Your task to perform on an android device: change notification settings in the gmail app Image 0: 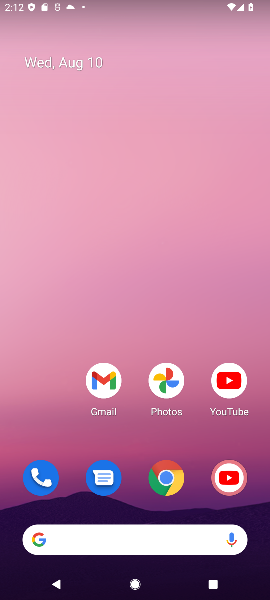
Step 0: click (99, 390)
Your task to perform on an android device: change notification settings in the gmail app Image 1: 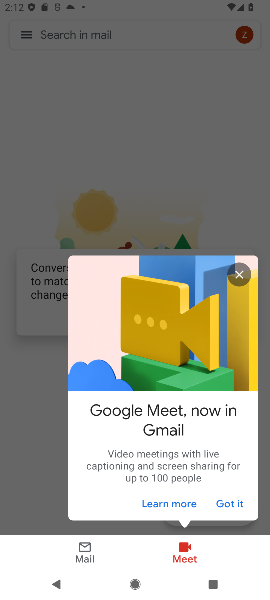
Step 1: click (233, 498)
Your task to perform on an android device: change notification settings in the gmail app Image 2: 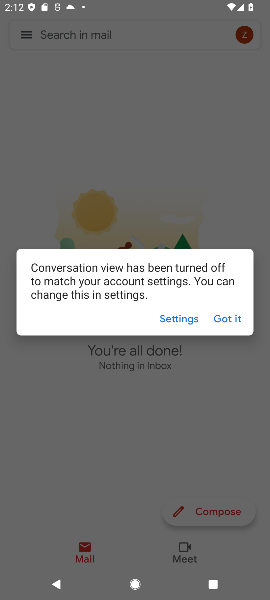
Step 2: click (235, 318)
Your task to perform on an android device: change notification settings in the gmail app Image 3: 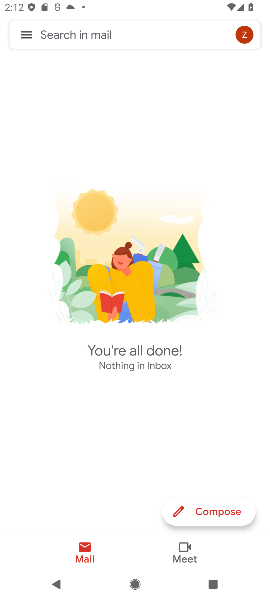
Step 3: task complete